Your task to perform on an android device: open chrome and create a bookmark for the current page Image 0: 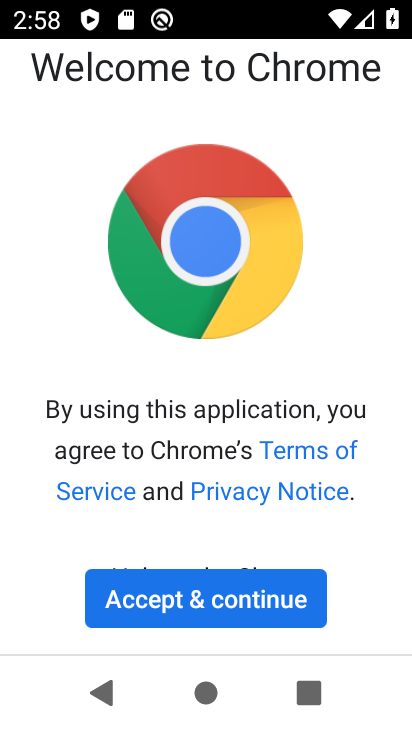
Step 0: press home button
Your task to perform on an android device: open chrome and create a bookmark for the current page Image 1: 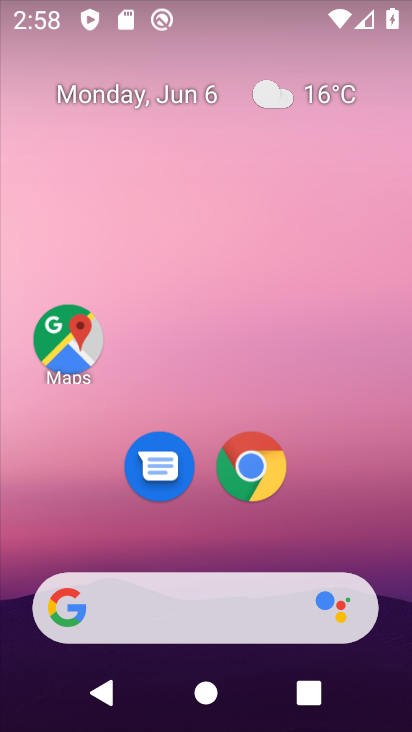
Step 1: click (254, 459)
Your task to perform on an android device: open chrome and create a bookmark for the current page Image 2: 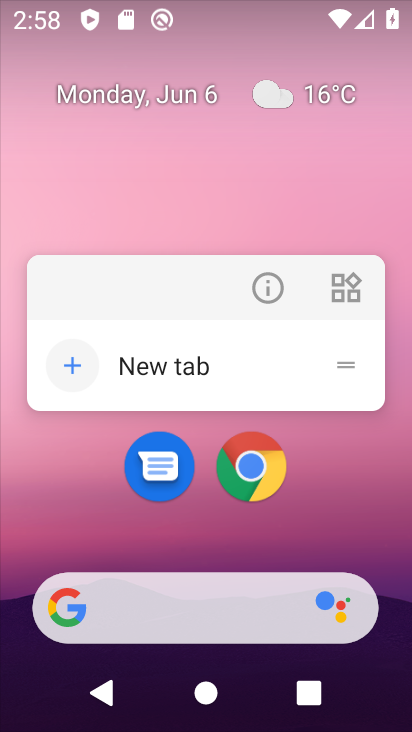
Step 2: click (252, 467)
Your task to perform on an android device: open chrome and create a bookmark for the current page Image 3: 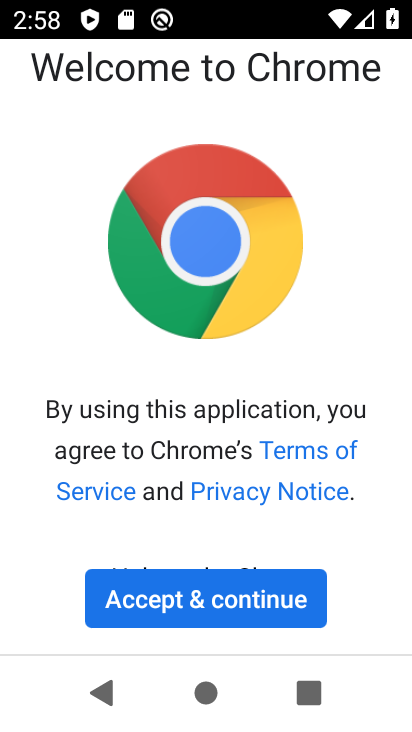
Step 3: press home button
Your task to perform on an android device: open chrome and create a bookmark for the current page Image 4: 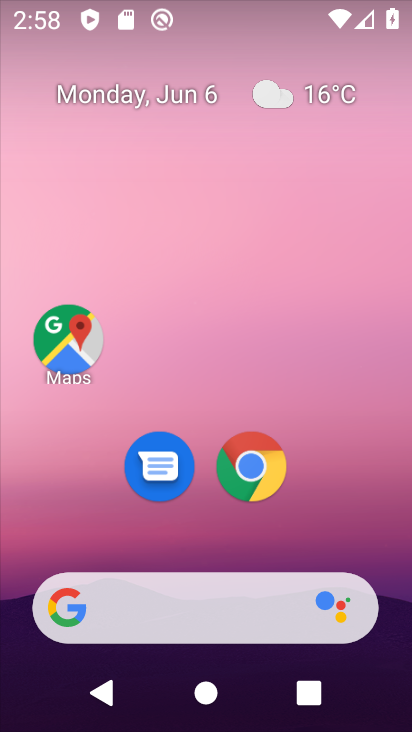
Step 4: drag from (358, 438) to (363, 77)
Your task to perform on an android device: open chrome and create a bookmark for the current page Image 5: 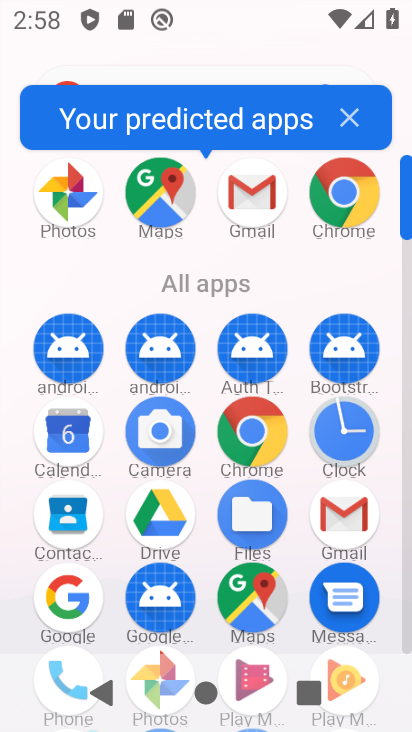
Step 5: click (352, 188)
Your task to perform on an android device: open chrome and create a bookmark for the current page Image 6: 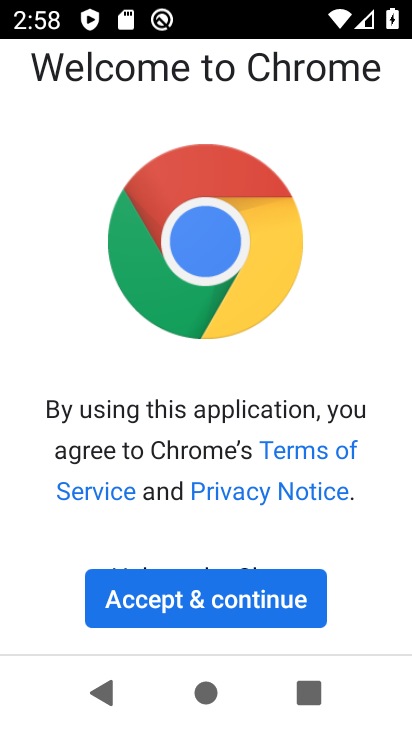
Step 6: click (187, 629)
Your task to perform on an android device: open chrome and create a bookmark for the current page Image 7: 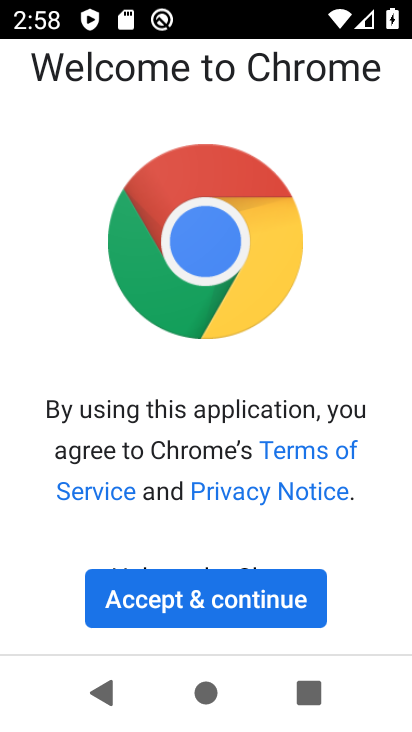
Step 7: click (193, 613)
Your task to perform on an android device: open chrome and create a bookmark for the current page Image 8: 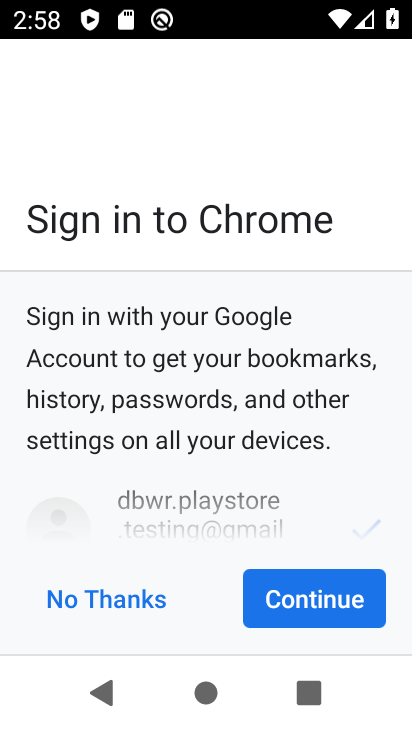
Step 8: click (295, 610)
Your task to perform on an android device: open chrome and create a bookmark for the current page Image 9: 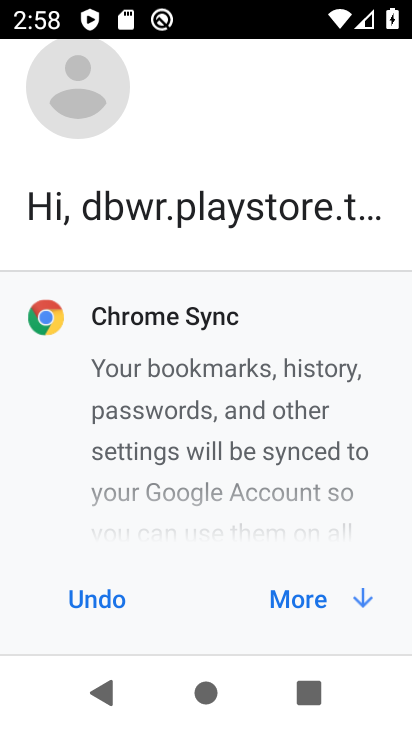
Step 9: click (297, 606)
Your task to perform on an android device: open chrome and create a bookmark for the current page Image 10: 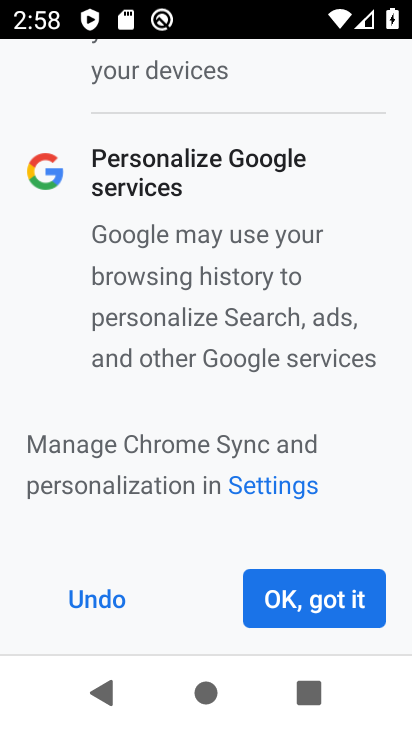
Step 10: click (297, 606)
Your task to perform on an android device: open chrome and create a bookmark for the current page Image 11: 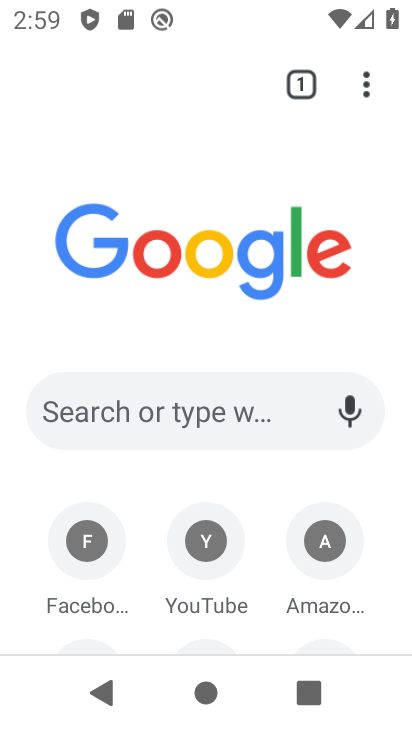
Step 11: drag from (372, 79) to (125, 315)
Your task to perform on an android device: open chrome and create a bookmark for the current page Image 12: 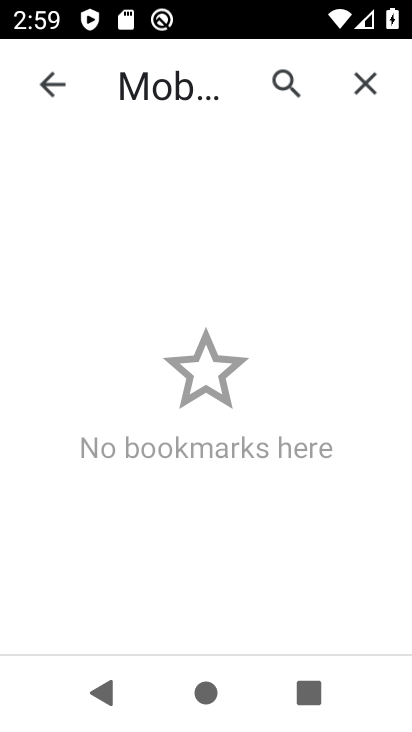
Step 12: click (54, 75)
Your task to perform on an android device: open chrome and create a bookmark for the current page Image 13: 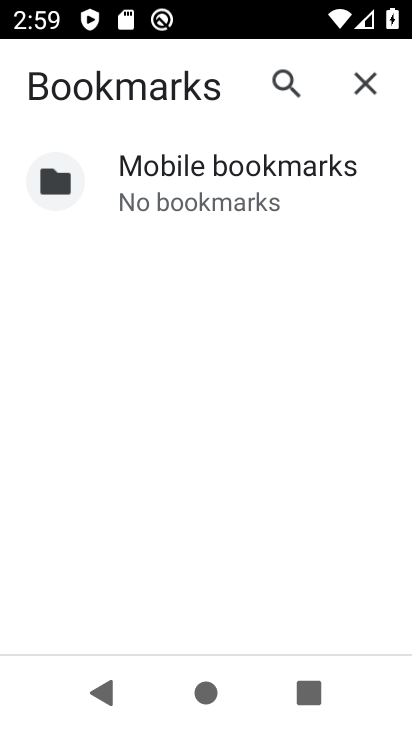
Step 13: click (372, 78)
Your task to perform on an android device: open chrome and create a bookmark for the current page Image 14: 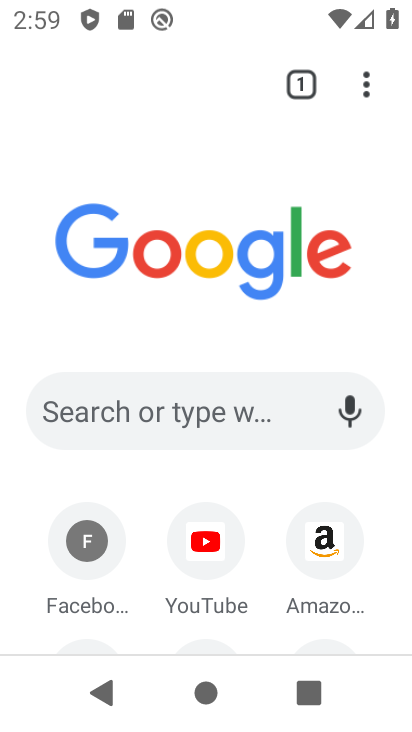
Step 14: task complete